Your task to perform on an android device: turn off javascript in the chrome app Image 0: 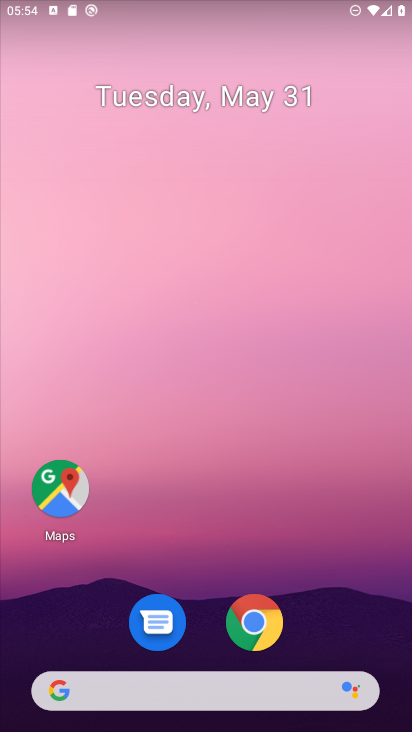
Step 0: drag from (313, 674) to (407, 392)
Your task to perform on an android device: turn off javascript in the chrome app Image 1: 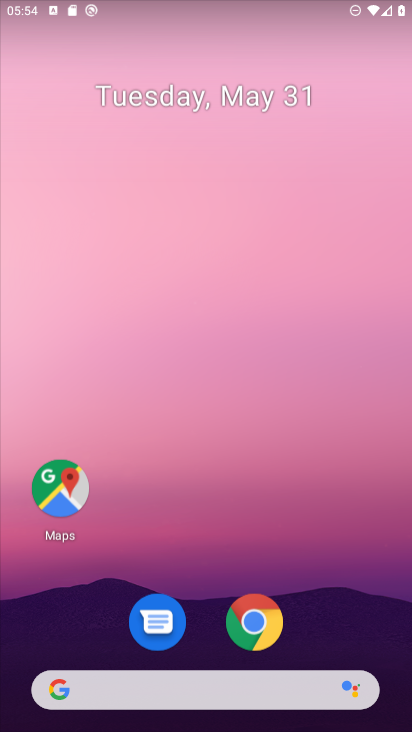
Step 1: click (255, 452)
Your task to perform on an android device: turn off javascript in the chrome app Image 2: 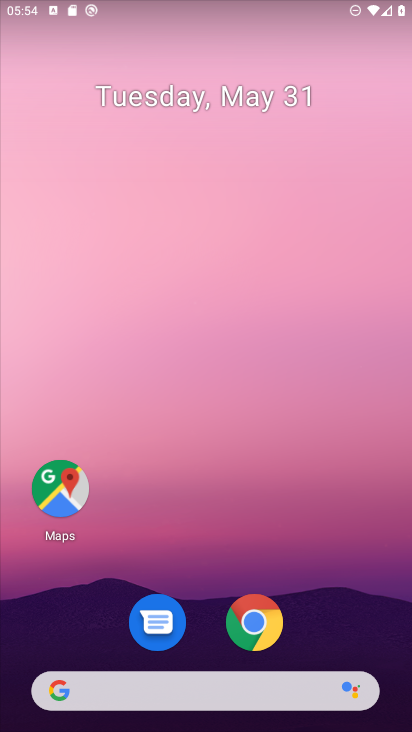
Step 2: drag from (319, 629) to (411, 349)
Your task to perform on an android device: turn off javascript in the chrome app Image 3: 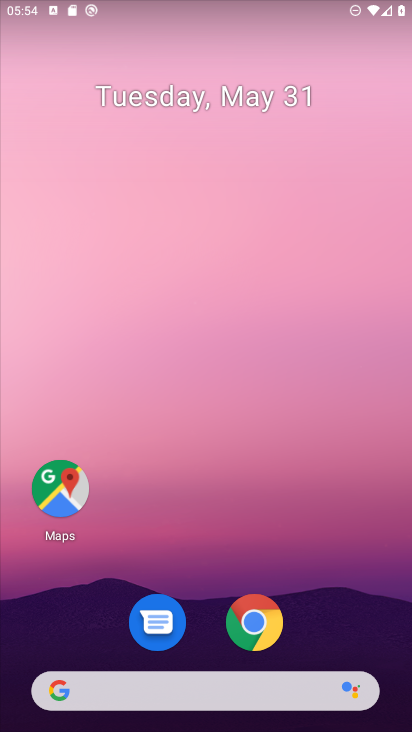
Step 3: click (247, 427)
Your task to perform on an android device: turn off javascript in the chrome app Image 4: 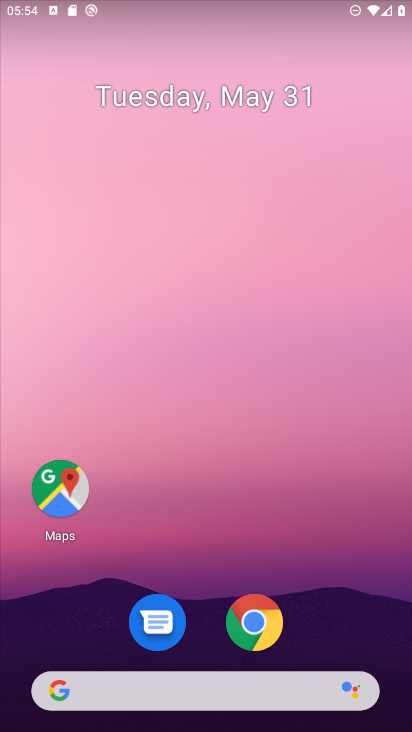
Step 4: drag from (381, 602) to (412, 19)
Your task to perform on an android device: turn off javascript in the chrome app Image 5: 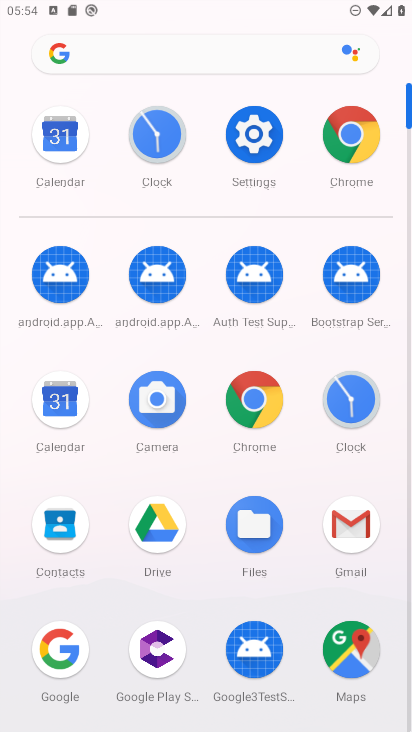
Step 5: click (272, 391)
Your task to perform on an android device: turn off javascript in the chrome app Image 6: 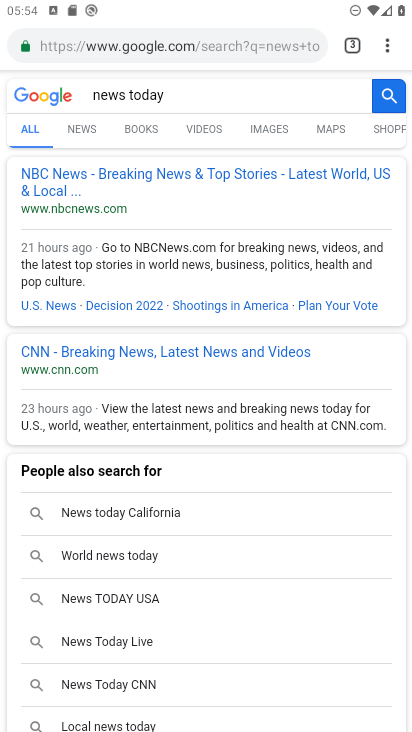
Step 6: click (384, 49)
Your task to perform on an android device: turn off javascript in the chrome app Image 7: 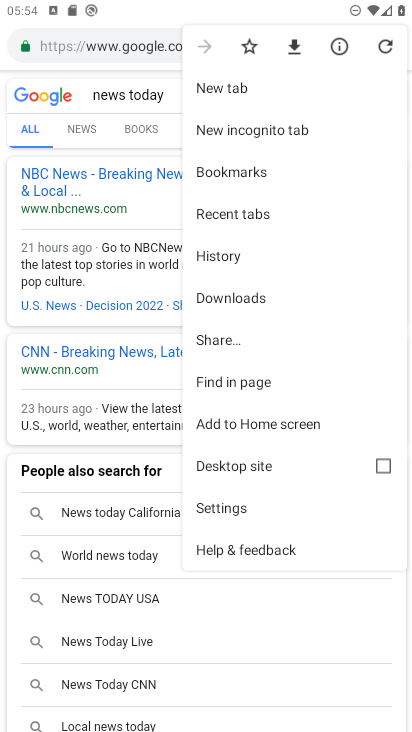
Step 7: click (224, 508)
Your task to perform on an android device: turn off javascript in the chrome app Image 8: 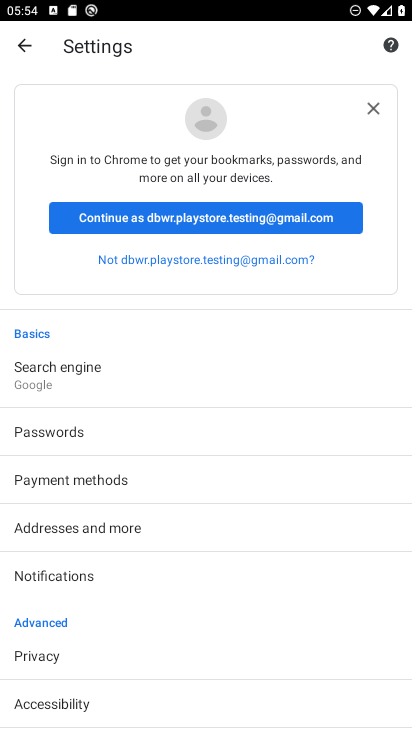
Step 8: drag from (107, 686) to (144, 307)
Your task to perform on an android device: turn off javascript in the chrome app Image 9: 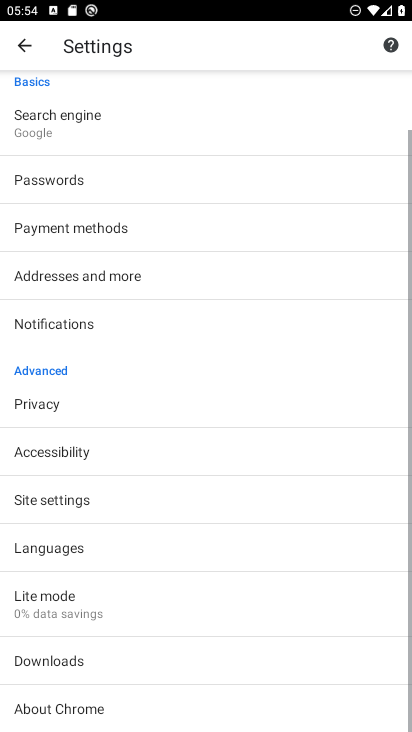
Step 9: click (95, 499)
Your task to perform on an android device: turn off javascript in the chrome app Image 10: 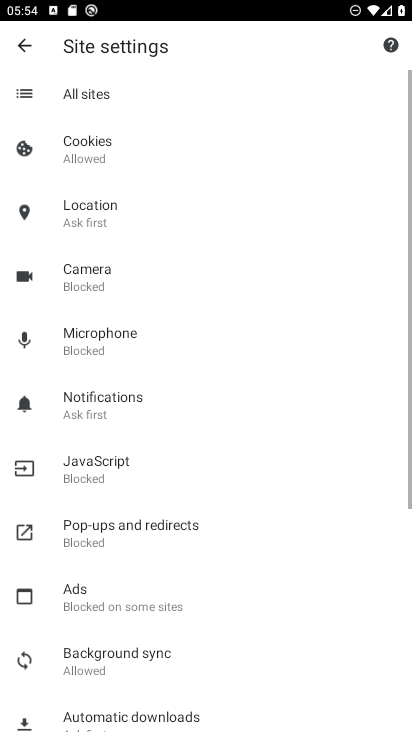
Step 10: click (151, 477)
Your task to perform on an android device: turn off javascript in the chrome app Image 11: 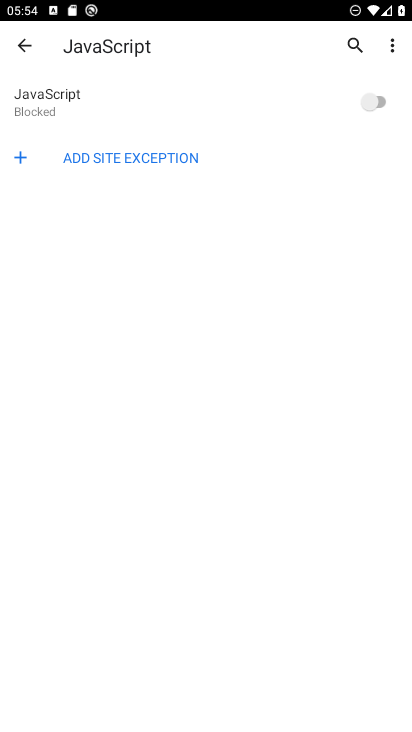
Step 11: task complete